Your task to perform on an android device: Open Youtube and go to the subscriptions tab Image 0: 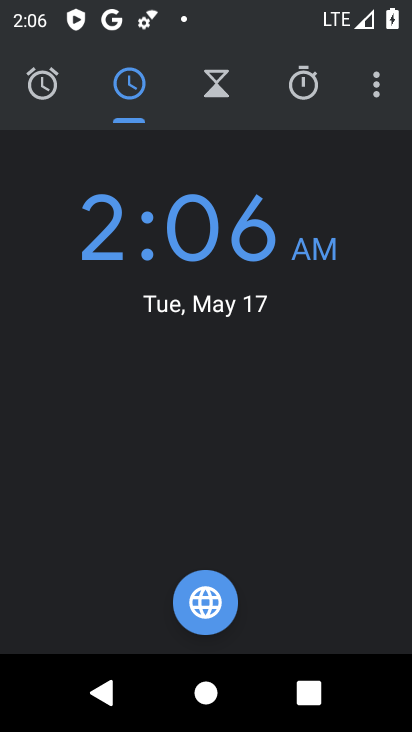
Step 0: press home button
Your task to perform on an android device: Open Youtube and go to the subscriptions tab Image 1: 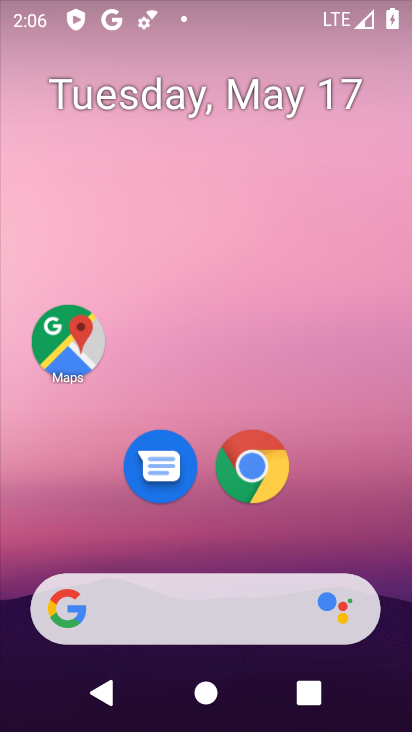
Step 1: drag from (333, 499) to (321, 0)
Your task to perform on an android device: Open Youtube and go to the subscriptions tab Image 2: 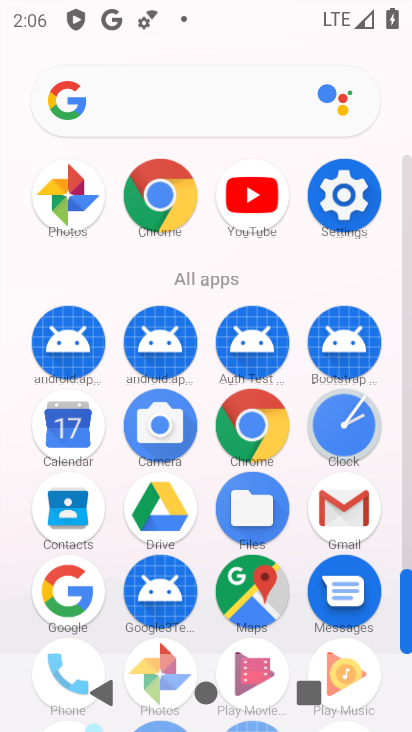
Step 2: click (236, 179)
Your task to perform on an android device: Open Youtube and go to the subscriptions tab Image 3: 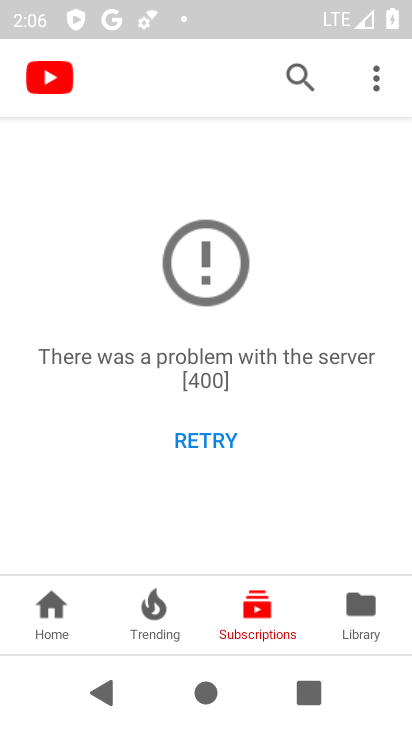
Step 3: task complete